Your task to perform on an android device: open wifi settings Image 0: 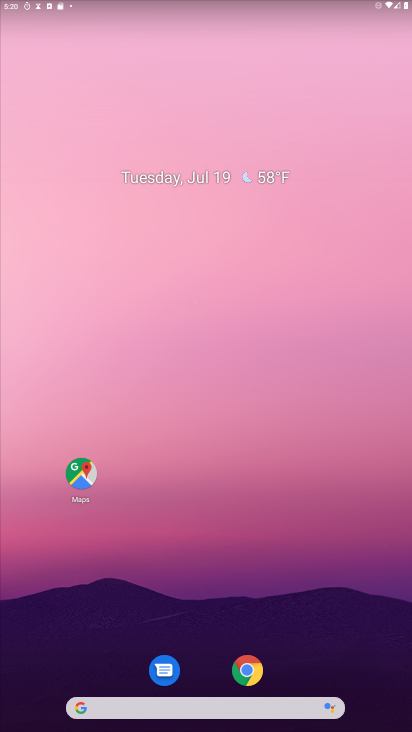
Step 0: drag from (213, 708) to (269, 9)
Your task to perform on an android device: open wifi settings Image 1: 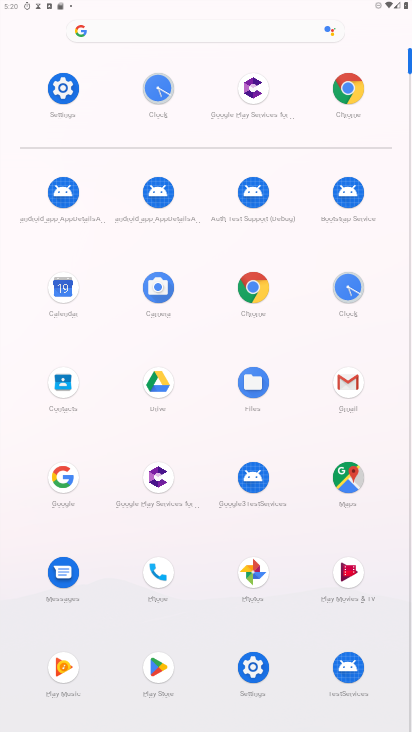
Step 1: click (68, 83)
Your task to perform on an android device: open wifi settings Image 2: 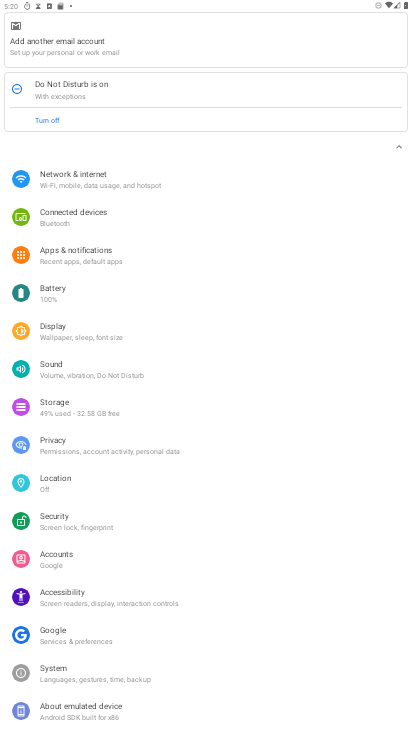
Step 2: click (54, 173)
Your task to perform on an android device: open wifi settings Image 3: 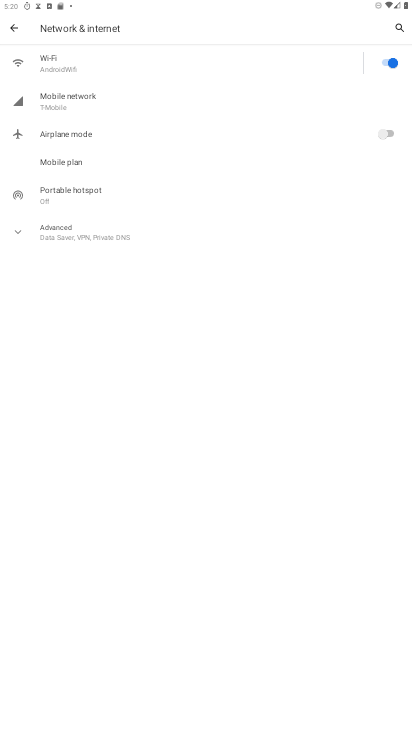
Step 3: click (58, 57)
Your task to perform on an android device: open wifi settings Image 4: 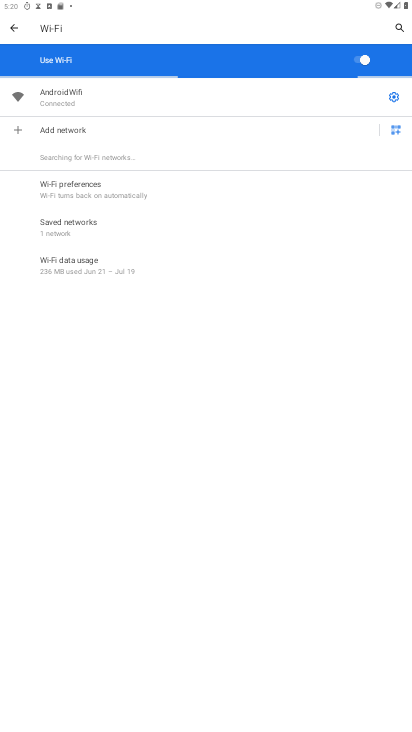
Step 4: task complete